Your task to perform on an android device: Open accessibility settings Image 0: 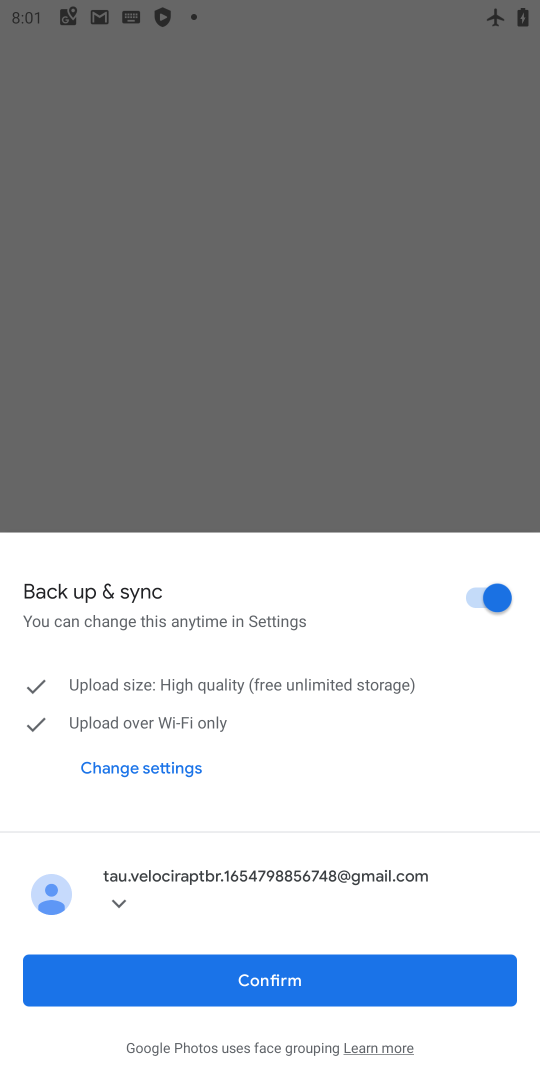
Step 0: press home button
Your task to perform on an android device: Open accessibility settings Image 1: 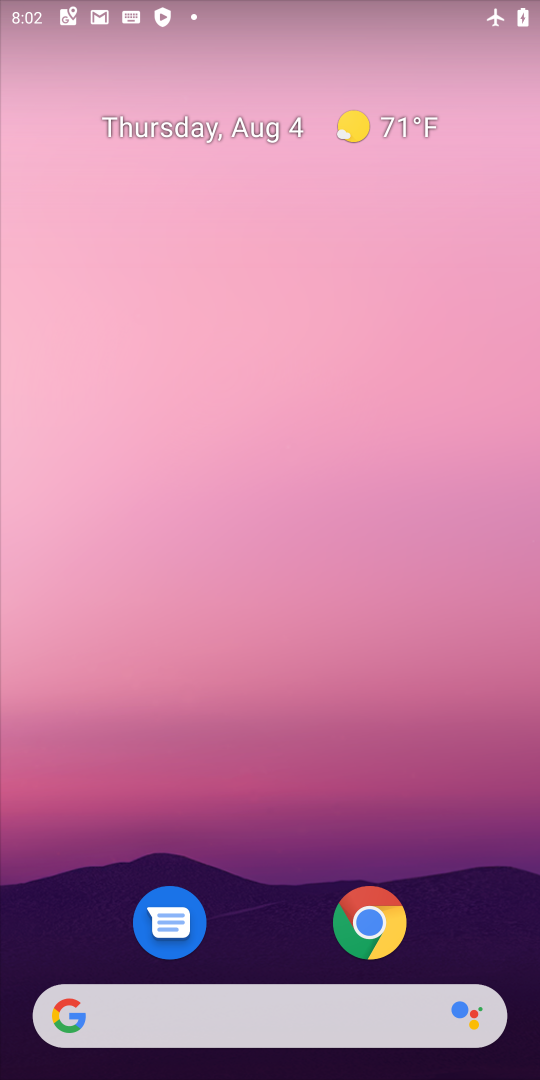
Step 1: drag from (482, 898) to (393, 132)
Your task to perform on an android device: Open accessibility settings Image 2: 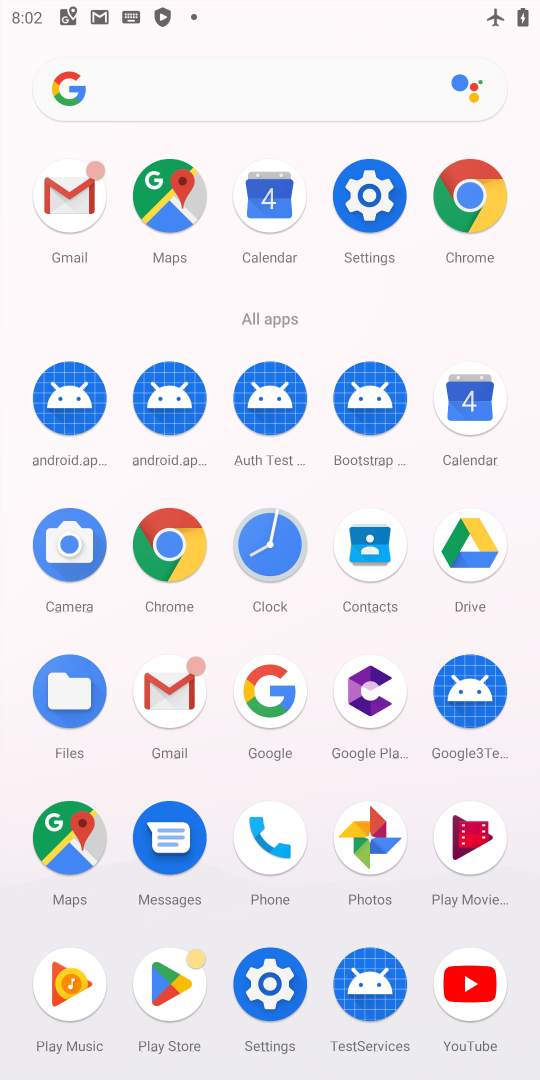
Step 2: click (272, 971)
Your task to perform on an android device: Open accessibility settings Image 3: 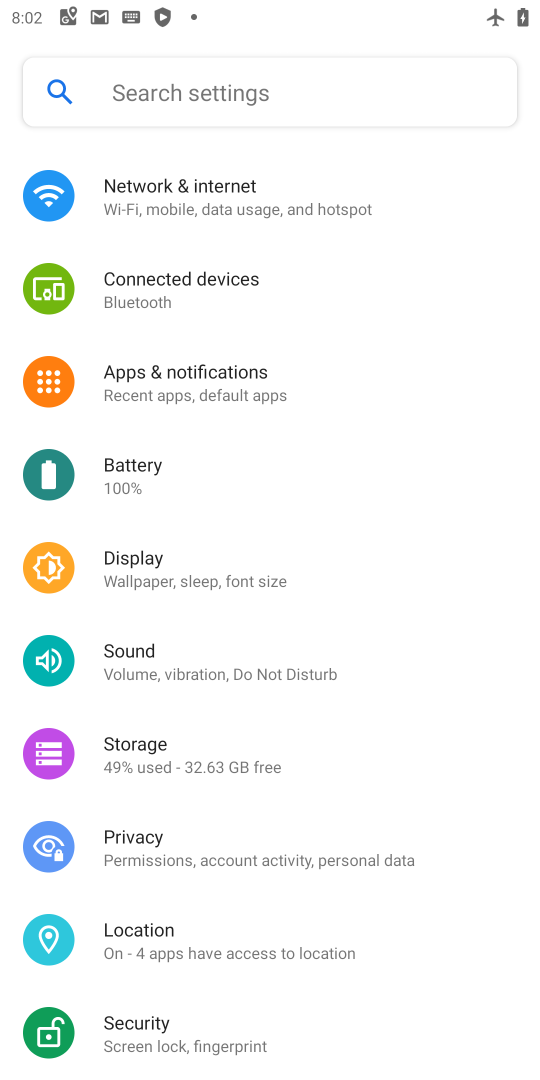
Step 3: drag from (318, 984) to (294, 604)
Your task to perform on an android device: Open accessibility settings Image 4: 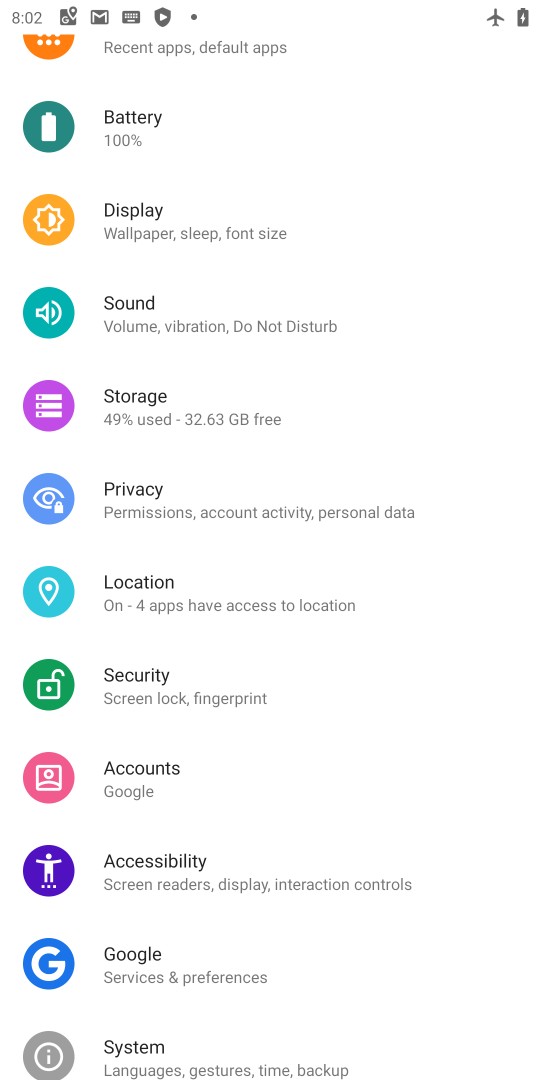
Step 4: click (148, 865)
Your task to perform on an android device: Open accessibility settings Image 5: 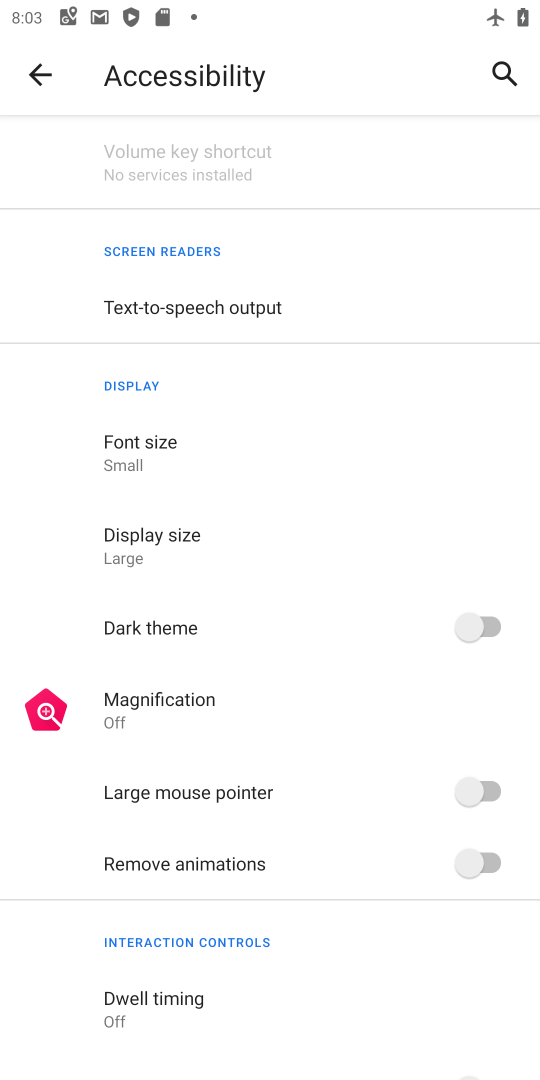
Step 5: task complete